Your task to perform on an android device: What is the recent news? Image 0: 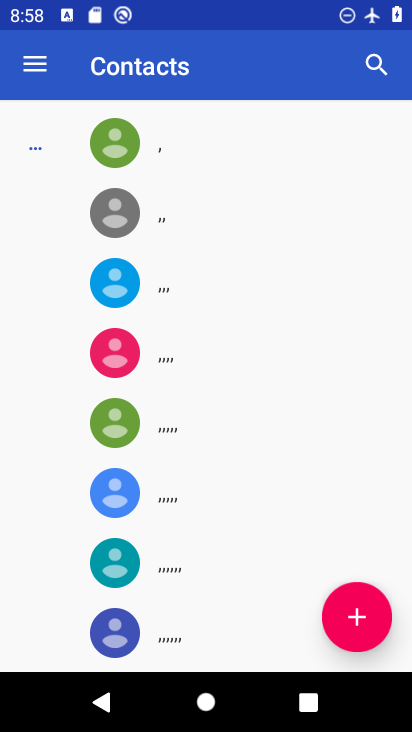
Step 0: press home button
Your task to perform on an android device: What is the recent news? Image 1: 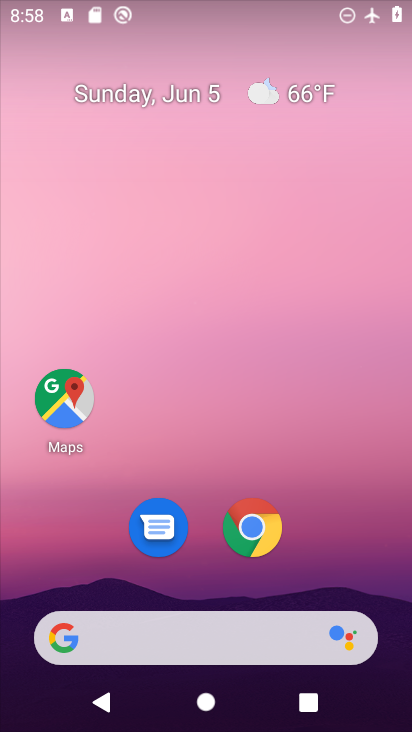
Step 1: click (255, 534)
Your task to perform on an android device: What is the recent news? Image 2: 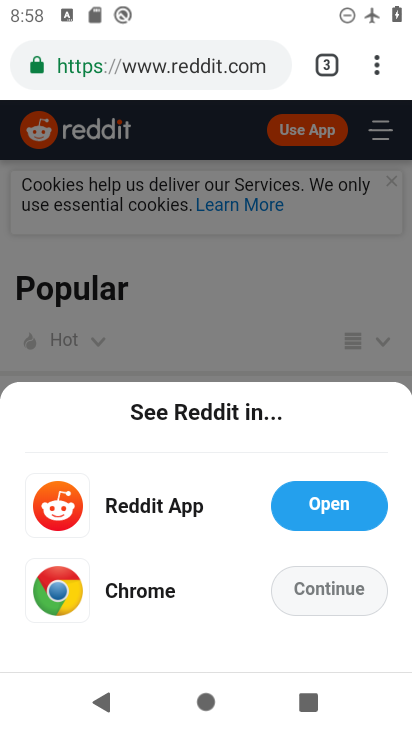
Step 2: click (329, 61)
Your task to perform on an android device: What is the recent news? Image 3: 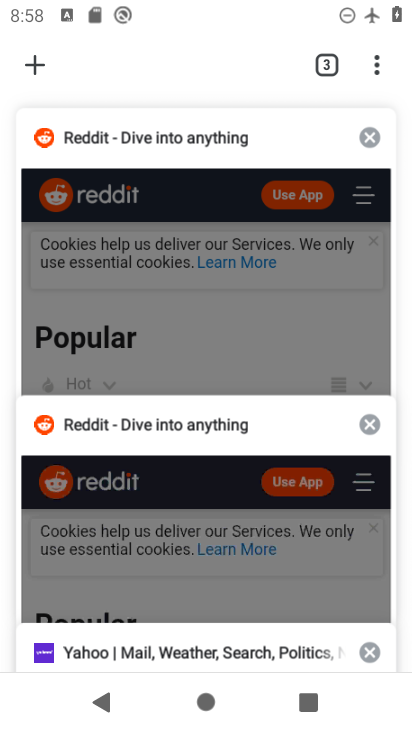
Step 3: click (36, 70)
Your task to perform on an android device: What is the recent news? Image 4: 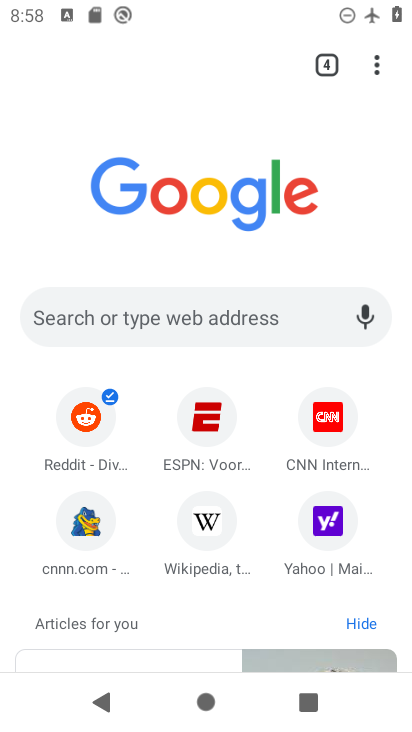
Step 4: task complete